Your task to perform on an android device: turn off data saver in the chrome app Image 0: 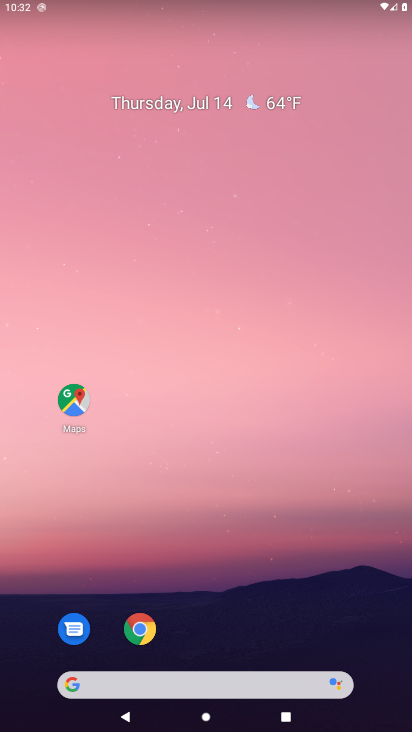
Step 0: click (265, 185)
Your task to perform on an android device: turn off data saver in the chrome app Image 1: 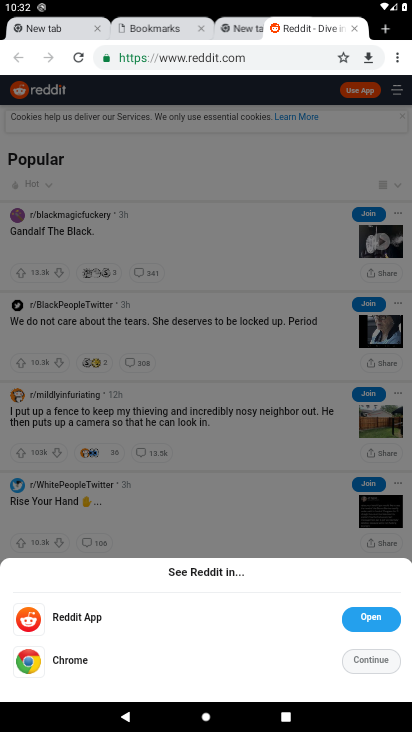
Step 1: press home button
Your task to perform on an android device: turn off data saver in the chrome app Image 2: 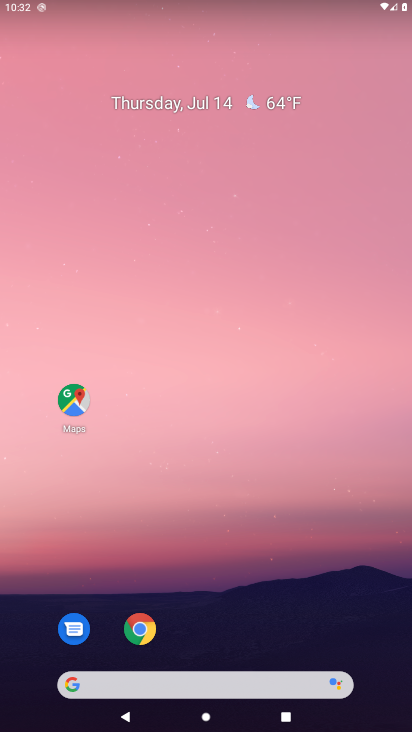
Step 2: drag from (180, 652) to (149, 359)
Your task to perform on an android device: turn off data saver in the chrome app Image 3: 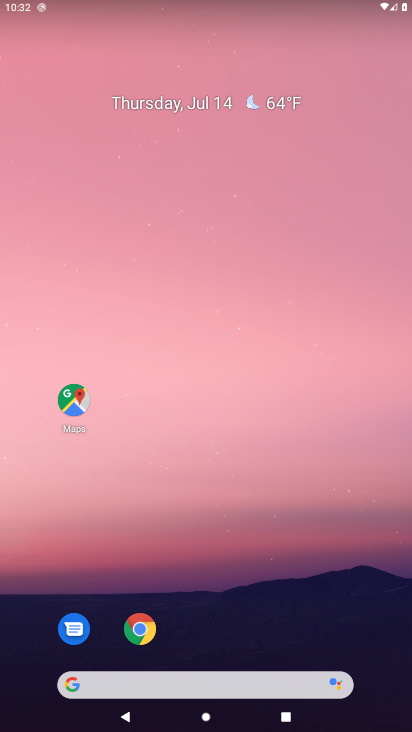
Step 3: click (141, 634)
Your task to perform on an android device: turn off data saver in the chrome app Image 4: 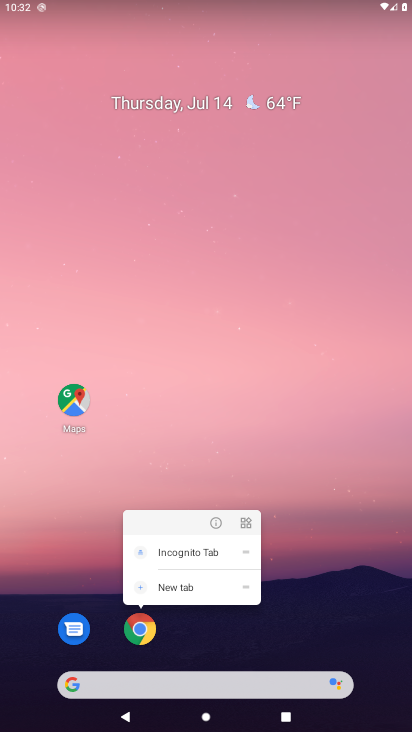
Step 4: click (142, 630)
Your task to perform on an android device: turn off data saver in the chrome app Image 5: 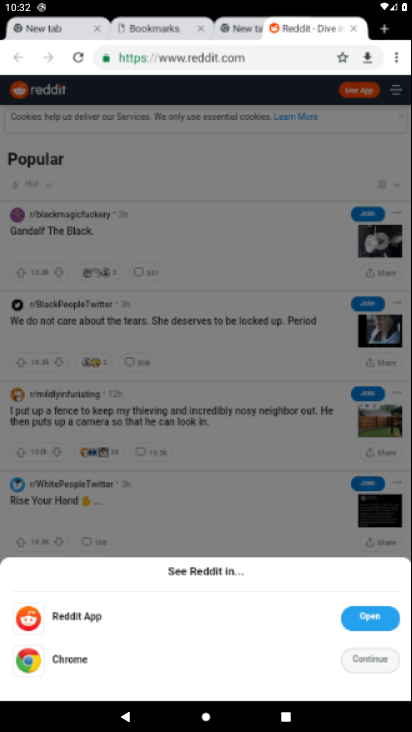
Step 5: click (393, 59)
Your task to perform on an android device: turn off data saver in the chrome app Image 6: 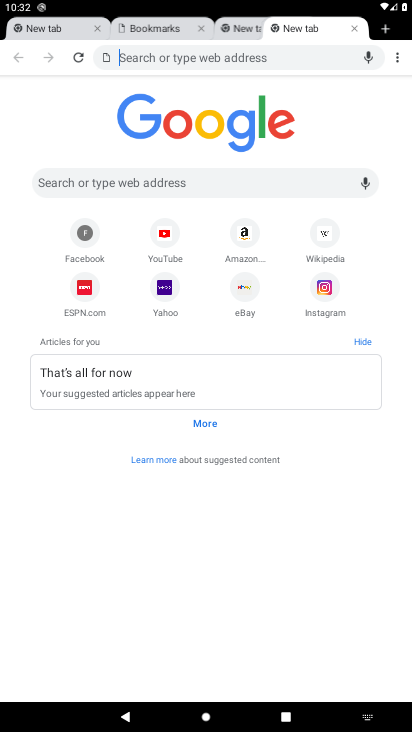
Step 6: click (400, 58)
Your task to perform on an android device: turn off data saver in the chrome app Image 7: 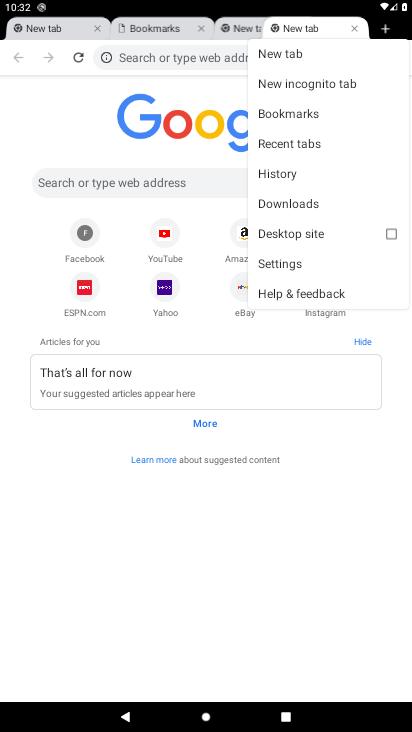
Step 7: click (283, 267)
Your task to perform on an android device: turn off data saver in the chrome app Image 8: 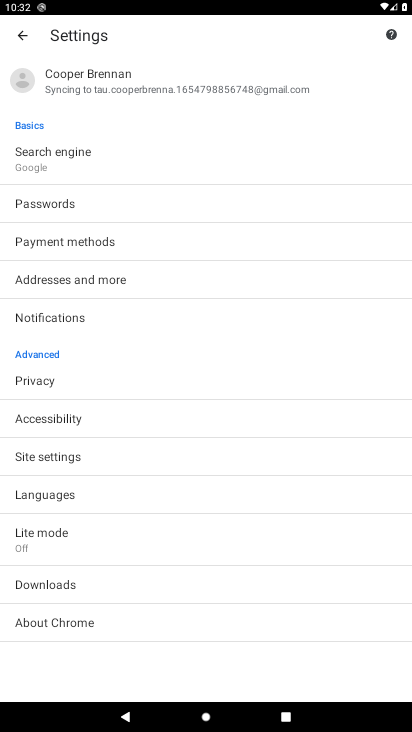
Step 8: click (37, 541)
Your task to perform on an android device: turn off data saver in the chrome app Image 9: 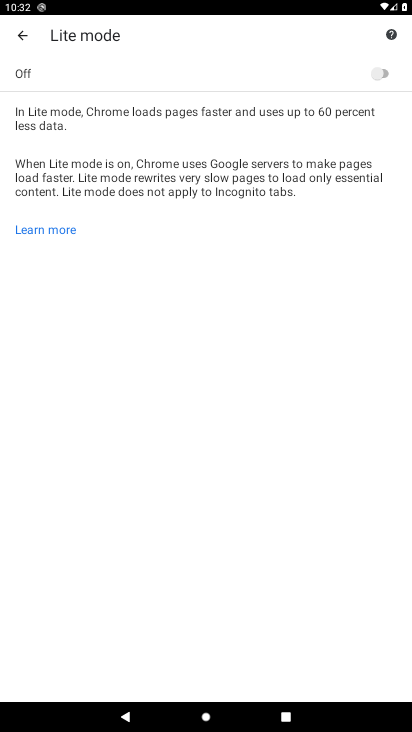
Step 9: task complete